Your task to perform on an android device: open chrome privacy settings Image 0: 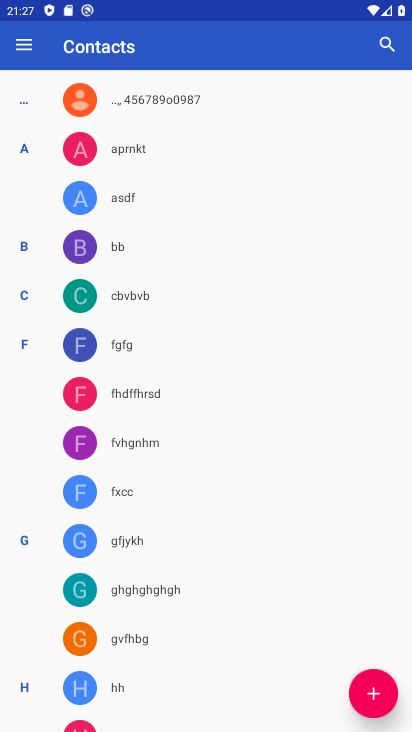
Step 0: press home button
Your task to perform on an android device: open chrome privacy settings Image 1: 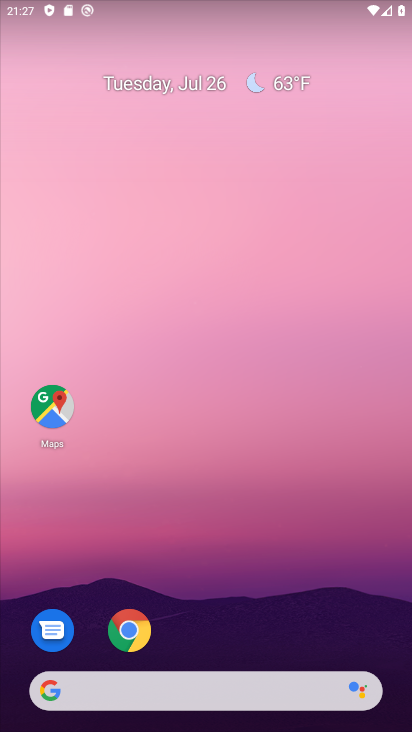
Step 1: click (126, 641)
Your task to perform on an android device: open chrome privacy settings Image 2: 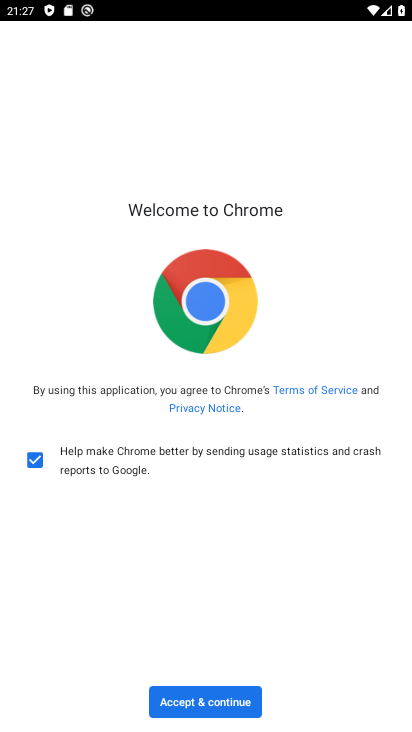
Step 2: click (184, 704)
Your task to perform on an android device: open chrome privacy settings Image 3: 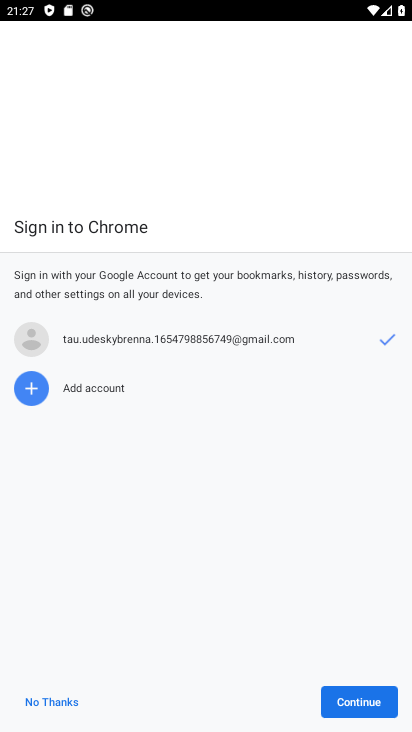
Step 3: click (366, 703)
Your task to perform on an android device: open chrome privacy settings Image 4: 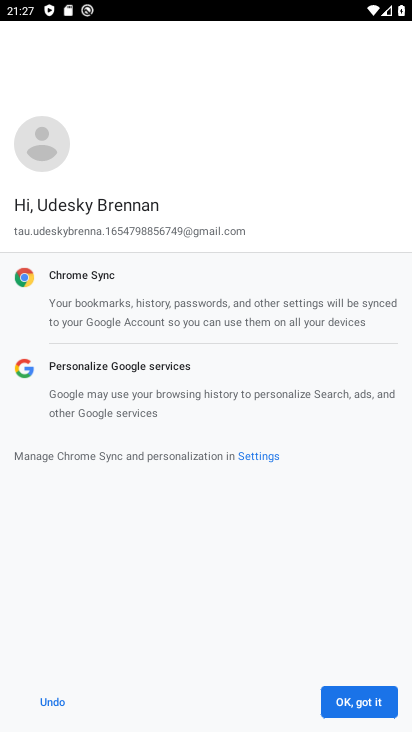
Step 4: click (366, 703)
Your task to perform on an android device: open chrome privacy settings Image 5: 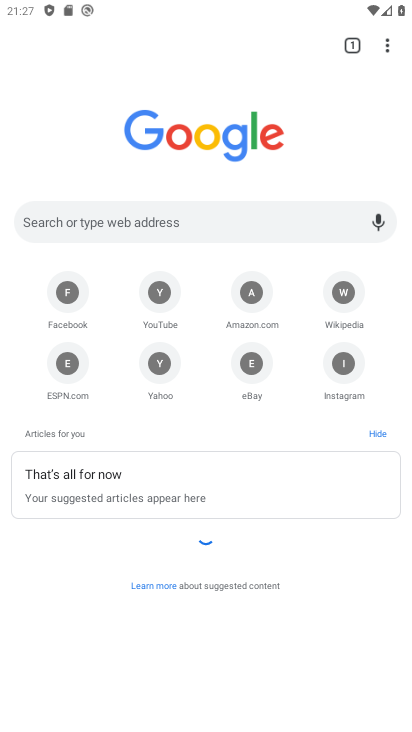
Step 5: click (388, 37)
Your task to perform on an android device: open chrome privacy settings Image 6: 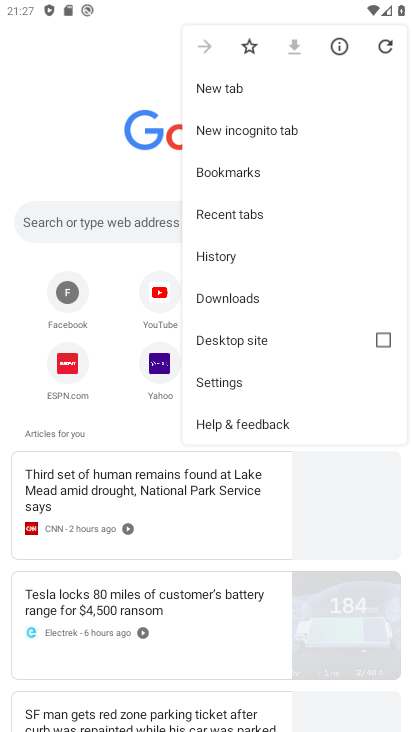
Step 6: click (222, 393)
Your task to perform on an android device: open chrome privacy settings Image 7: 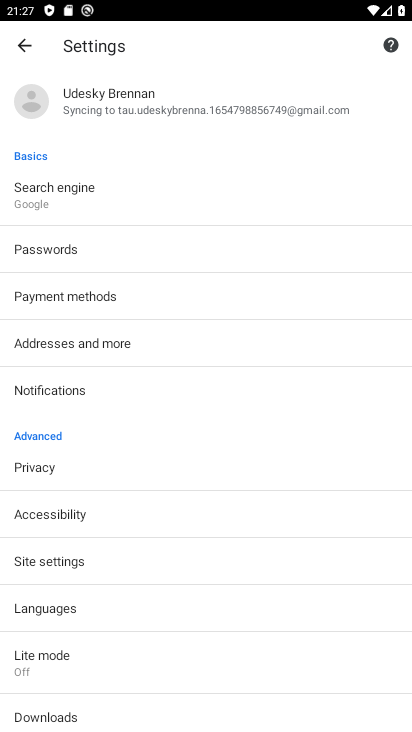
Step 7: click (122, 475)
Your task to perform on an android device: open chrome privacy settings Image 8: 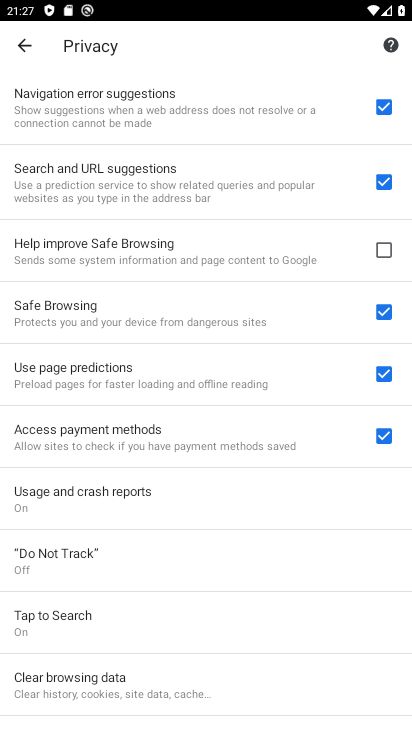
Step 8: task complete